Your task to perform on an android device: all mails in gmail Image 0: 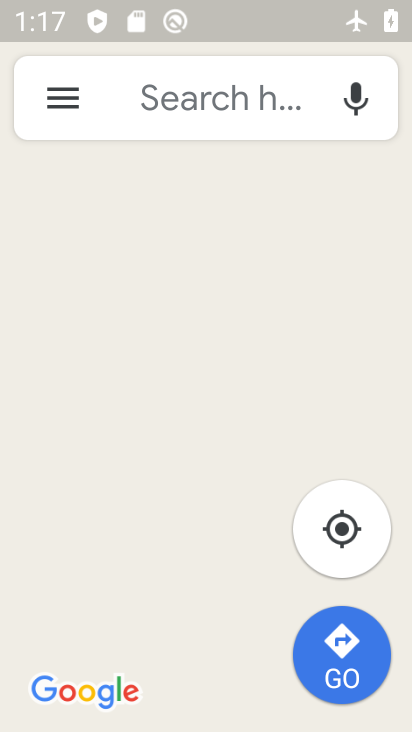
Step 0: press home button
Your task to perform on an android device: all mails in gmail Image 1: 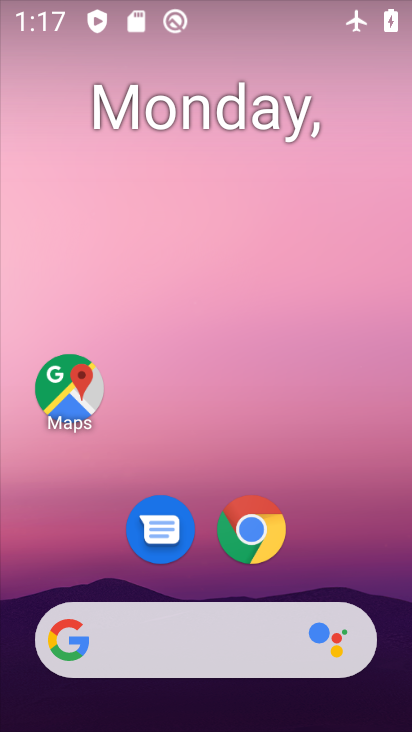
Step 1: drag from (383, 488) to (378, 14)
Your task to perform on an android device: all mails in gmail Image 2: 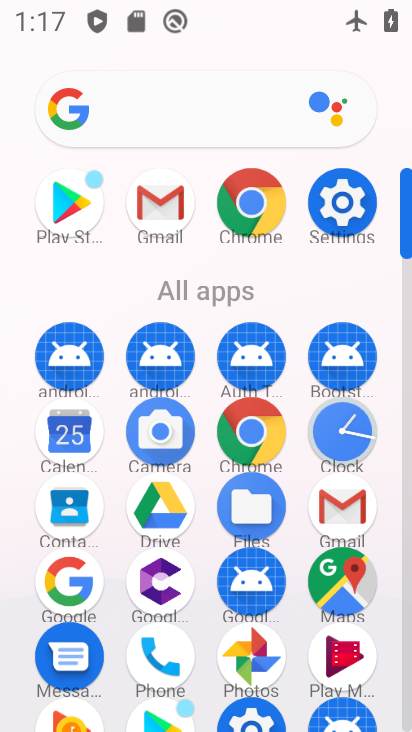
Step 2: click (164, 190)
Your task to perform on an android device: all mails in gmail Image 3: 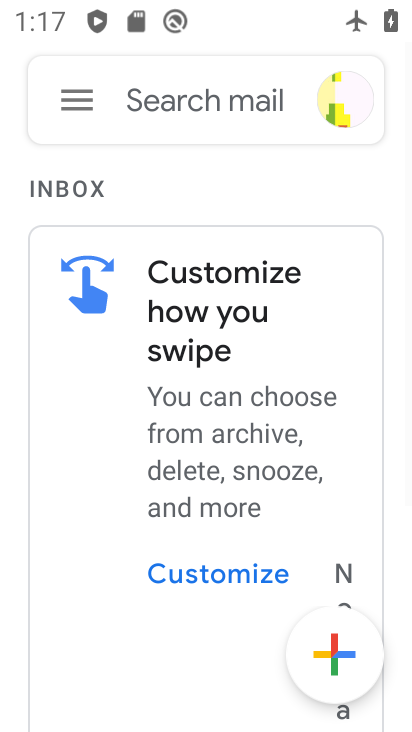
Step 3: click (68, 103)
Your task to perform on an android device: all mails in gmail Image 4: 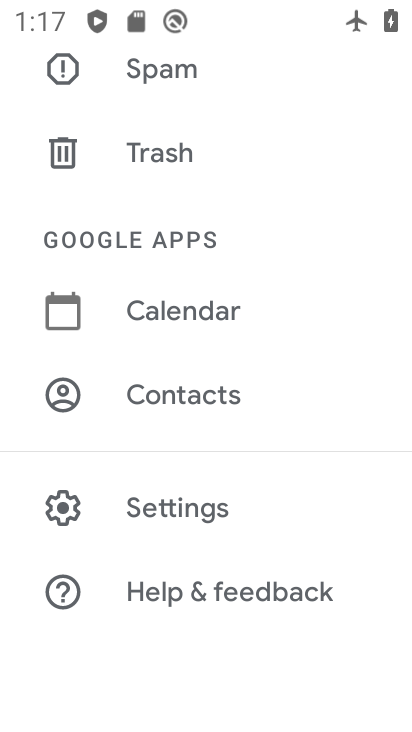
Step 4: drag from (163, 163) to (182, 569)
Your task to perform on an android device: all mails in gmail Image 5: 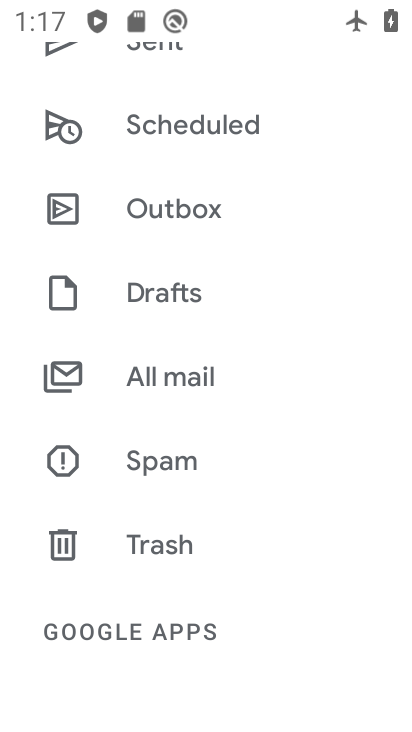
Step 5: drag from (274, 359) to (298, 610)
Your task to perform on an android device: all mails in gmail Image 6: 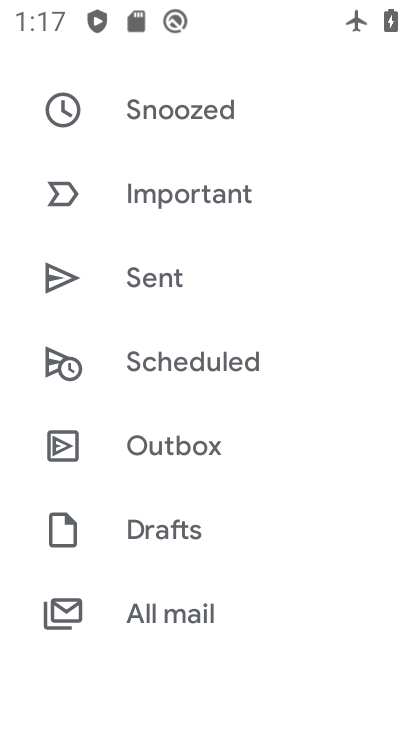
Step 6: drag from (276, 263) to (237, 590)
Your task to perform on an android device: all mails in gmail Image 7: 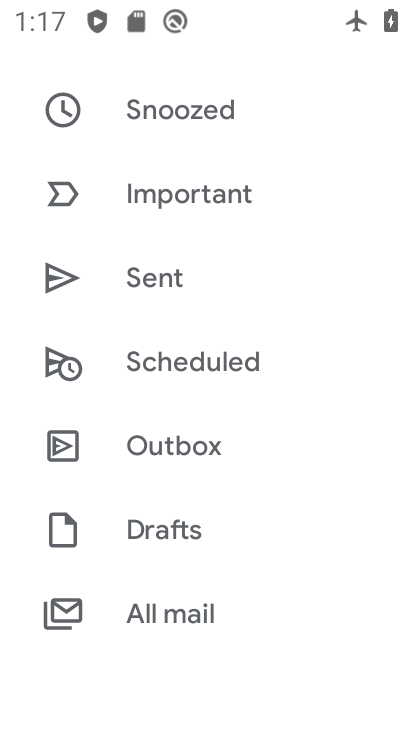
Step 7: drag from (229, 349) to (214, 601)
Your task to perform on an android device: all mails in gmail Image 8: 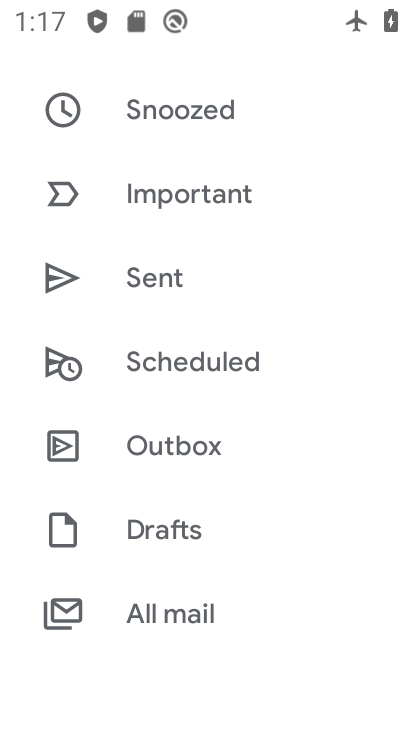
Step 8: drag from (253, 483) to (311, 201)
Your task to perform on an android device: all mails in gmail Image 9: 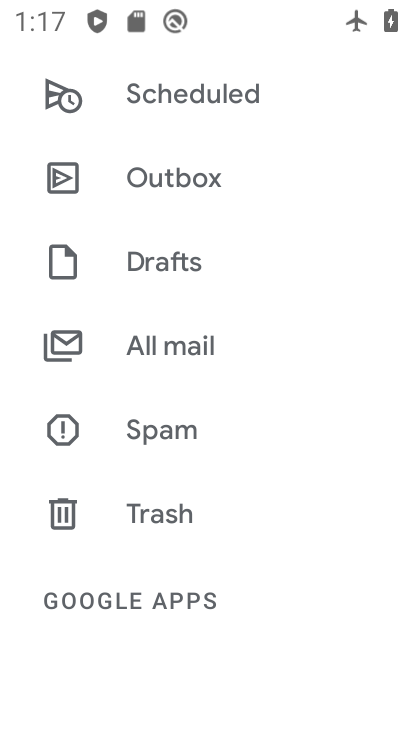
Step 9: click (168, 347)
Your task to perform on an android device: all mails in gmail Image 10: 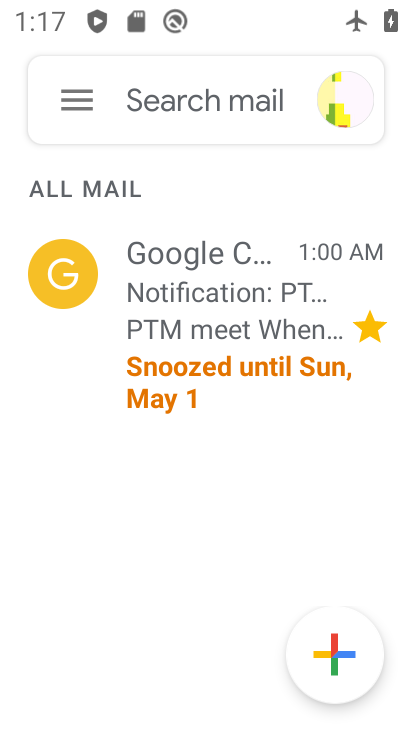
Step 10: task complete